Your task to perform on an android device: stop showing notifications on the lock screen Image 0: 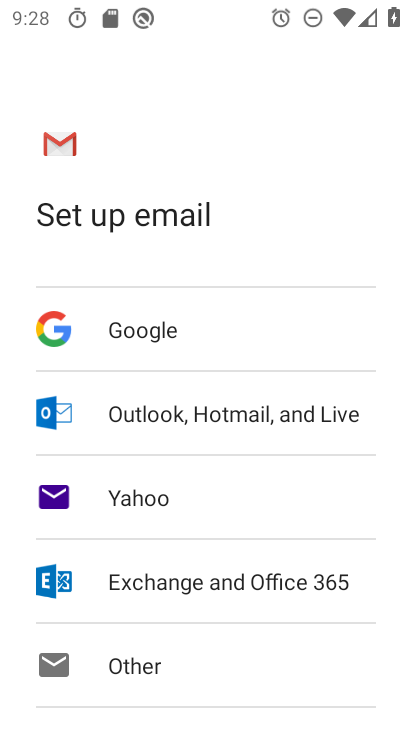
Step 0: press home button
Your task to perform on an android device: stop showing notifications on the lock screen Image 1: 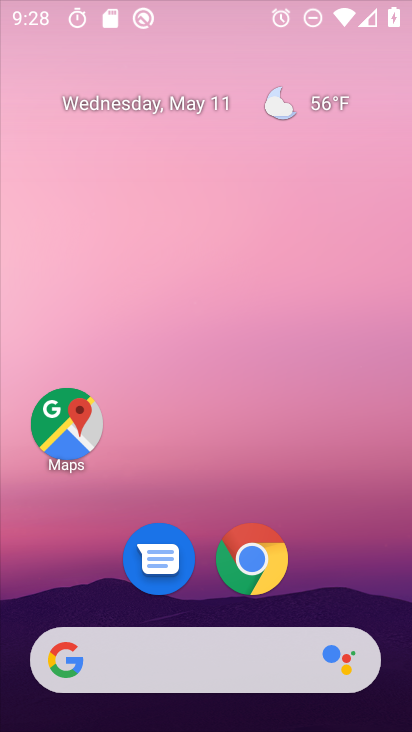
Step 1: press home button
Your task to perform on an android device: stop showing notifications on the lock screen Image 2: 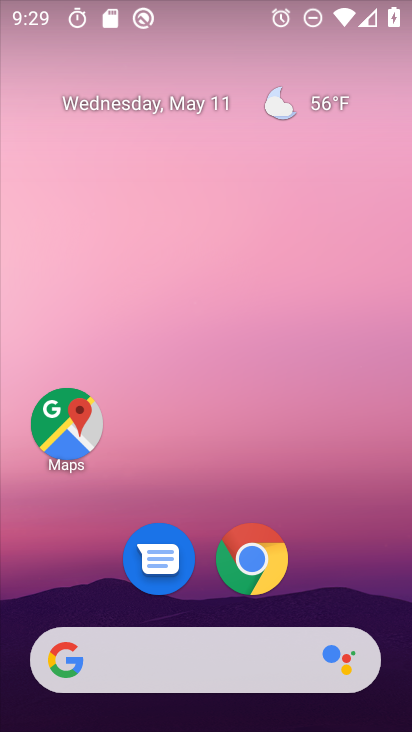
Step 2: drag from (287, 485) to (148, 7)
Your task to perform on an android device: stop showing notifications on the lock screen Image 3: 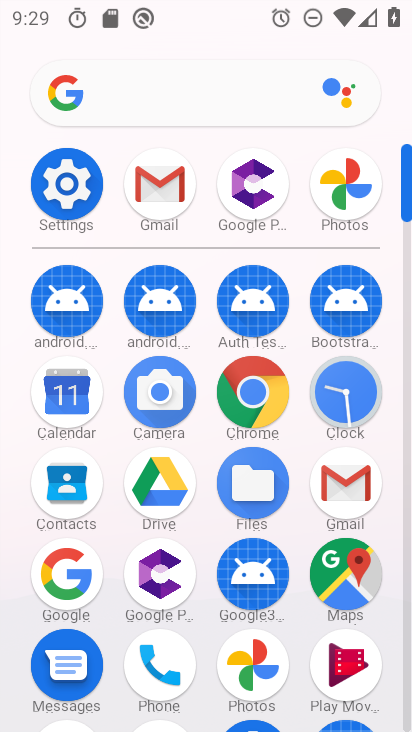
Step 3: click (85, 181)
Your task to perform on an android device: stop showing notifications on the lock screen Image 4: 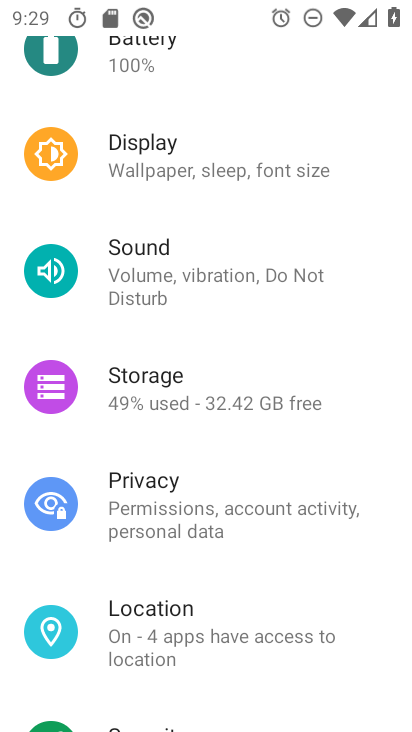
Step 4: drag from (292, 229) to (315, 568)
Your task to perform on an android device: stop showing notifications on the lock screen Image 5: 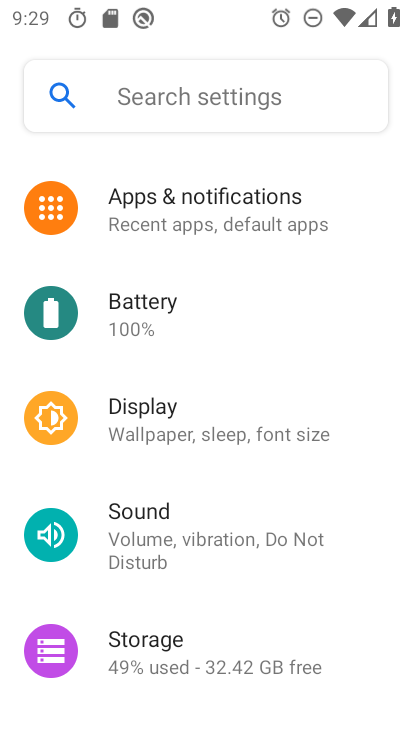
Step 5: click (247, 201)
Your task to perform on an android device: stop showing notifications on the lock screen Image 6: 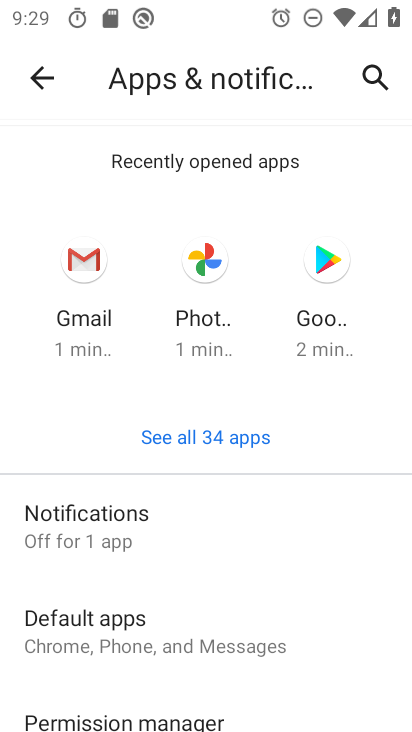
Step 6: click (115, 537)
Your task to perform on an android device: stop showing notifications on the lock screen Image 7: 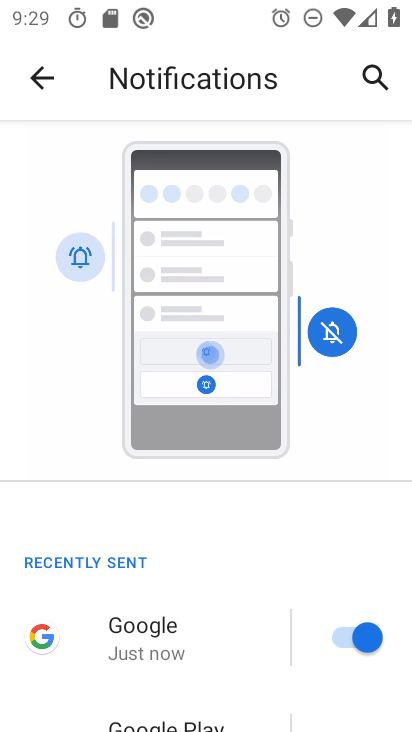
Step 7: drag from (240, 674) to (214, 252)
Your task to perform on an android device: stop showing notifications on the lock screen Image 8: 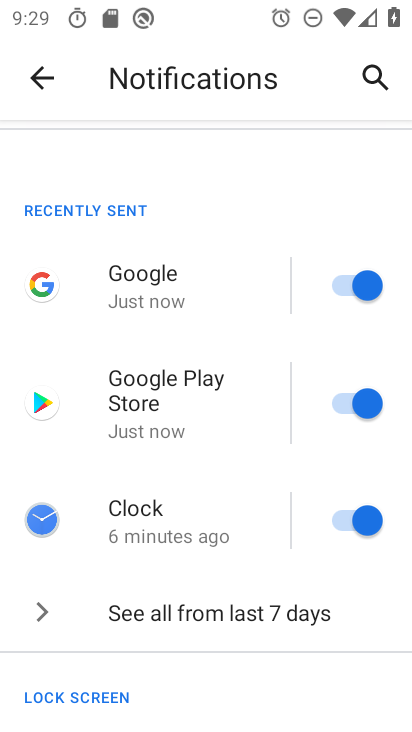
Step 8: drag from (258, 686) to (239, 359)
Your task to perform on an android device: stop showing notifications on the lock screen Image 9: 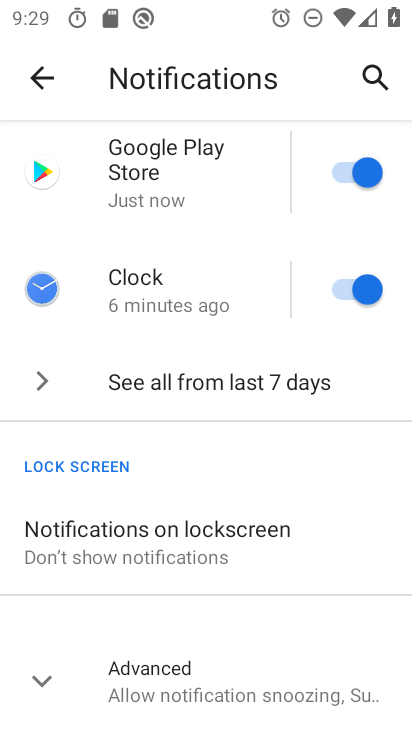
Step 9: click (221, 547)
Your task to perform on an android device: stop showing notifications on the lock screen Image 10: 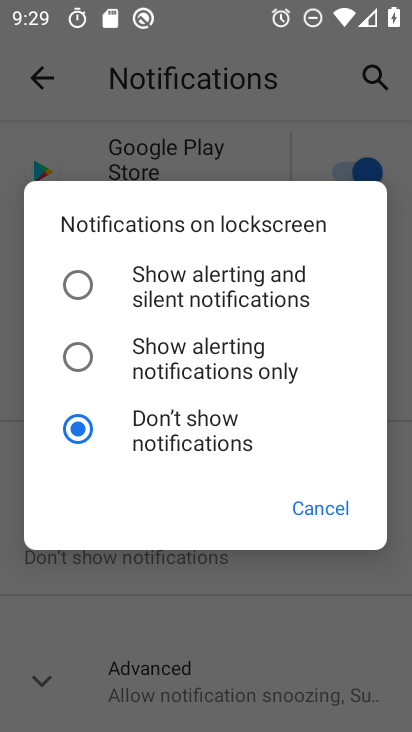
Step 10: task complete